Your task to perform on an android device: Open the web browser Image 0: 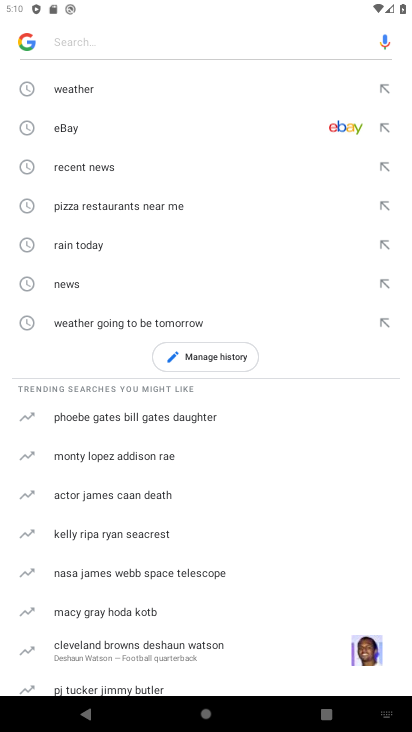
Step 0: press home button
Your task to perform on an android device: Open the web browser Image 1: 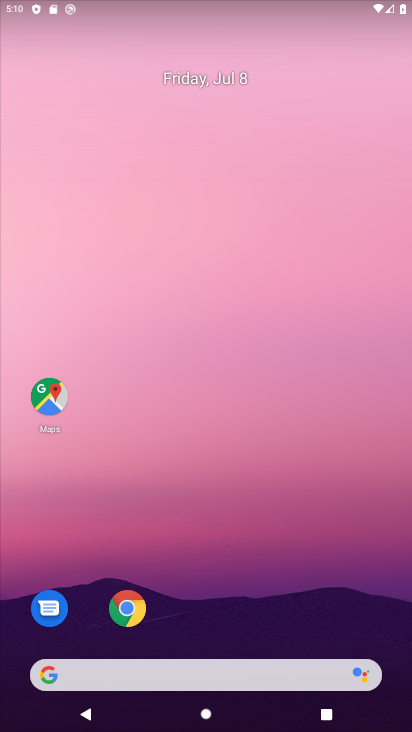
Step 1: drag from (321, 624) to (375, 136)
Your task to perform on an android device: Open the web browser Image 2: 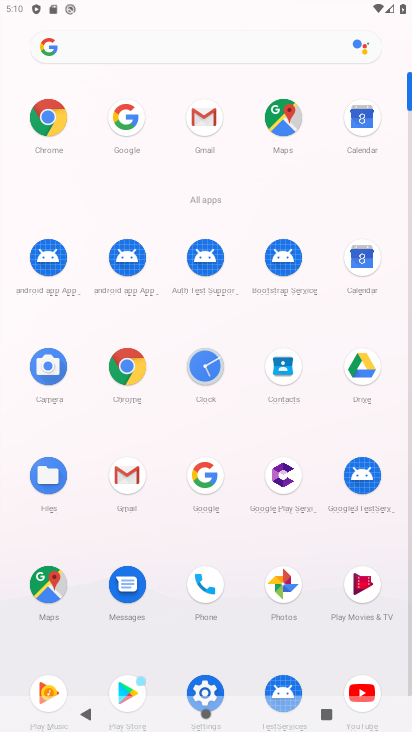
Step 2: click (130, 370)
Your task to perform on an android device: Open the web browser Image 3: 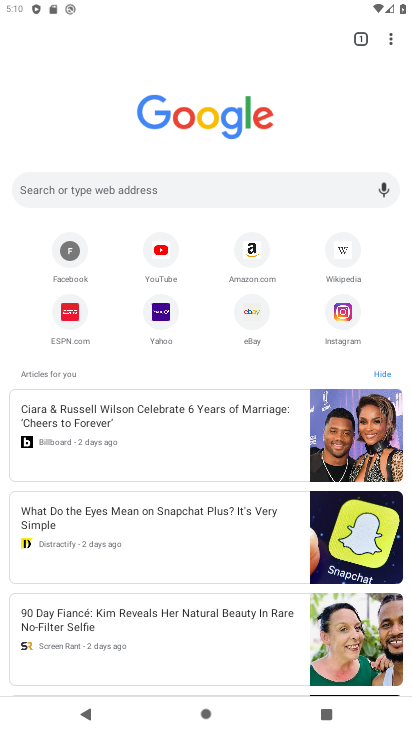
Step 3: task complete